Your task to perform on an android device: stop showing notifications on the lock screen Image 0: 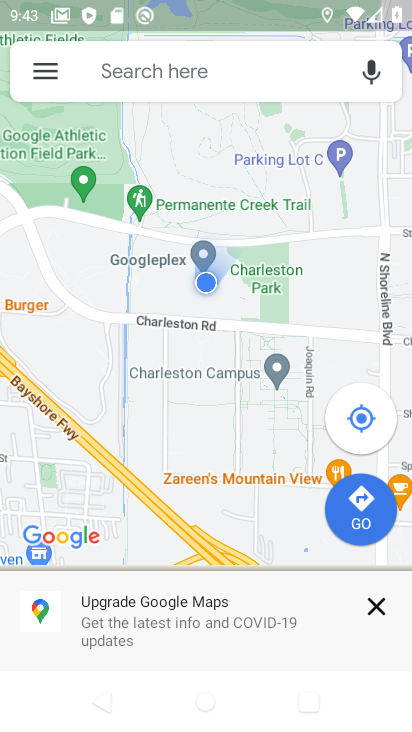
Step 0: press home button
Your task to perform on an android device: stop showing notifications on the lock screen Image 1: 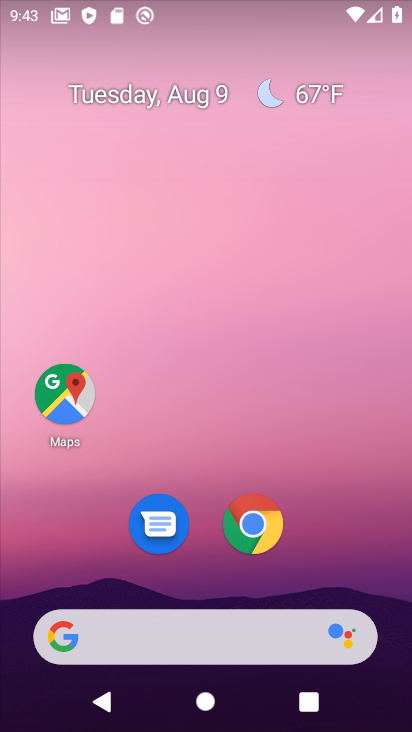
Step 1: drag from (304, 557) to (243, 216)
Your task to perform on an android device: stop showing notifications on the lock screen Image 2: 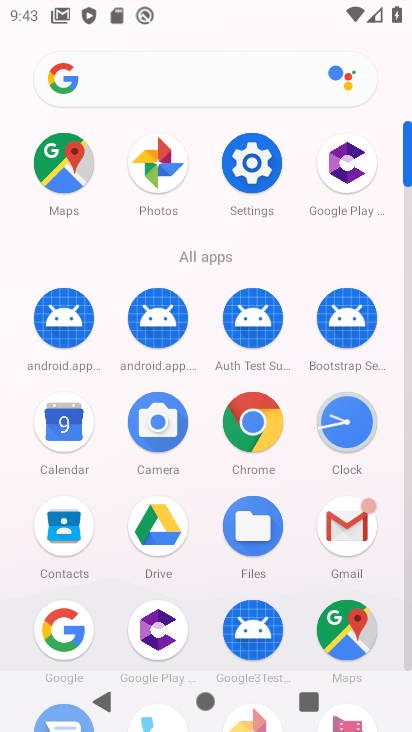
Step 2: click (256, 191)
Your task to perform on an android device: stop showing notifications on the lock screen Image 3: 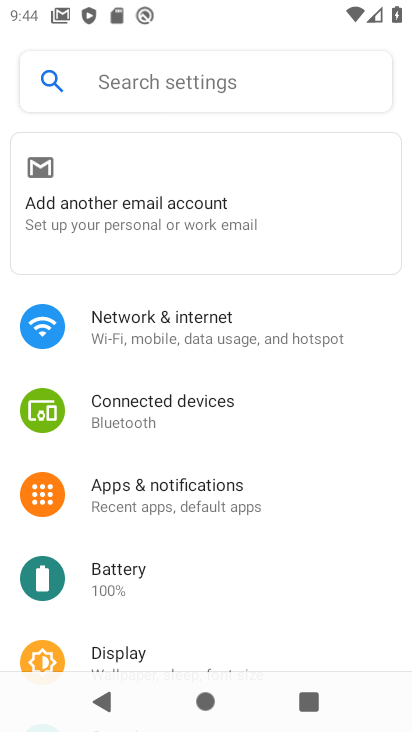
Step 3: click (175, 495)
Your task to perform on an android device: stop showing notifications on the lock screen Image 4: 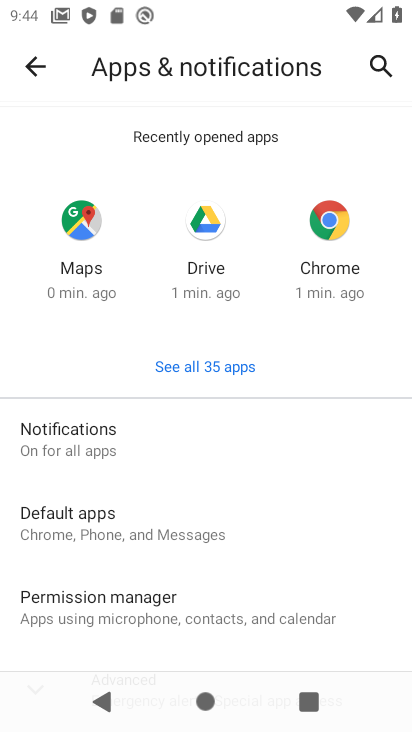
Step 4: drag from (139, 568) to (180, 234)
Your task to perform on an android device: stop showing notifications on the lock screen Image 5: 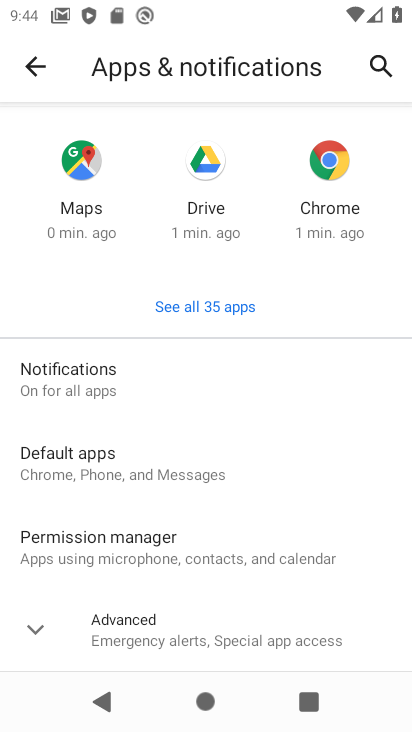
Step 5: click (185, 632)
Your task to perform on an android device: stop showing notifications on the lock screen Image 6: 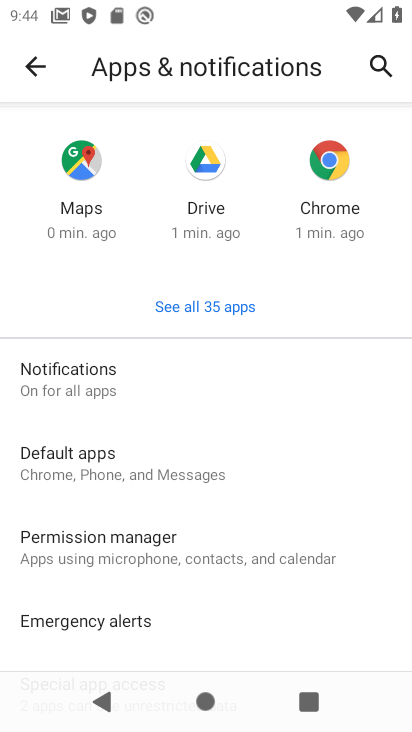
Step 6: click (82, 394)
Your task to perform on an android device: stop showing notifications on the lock screen Image 7: 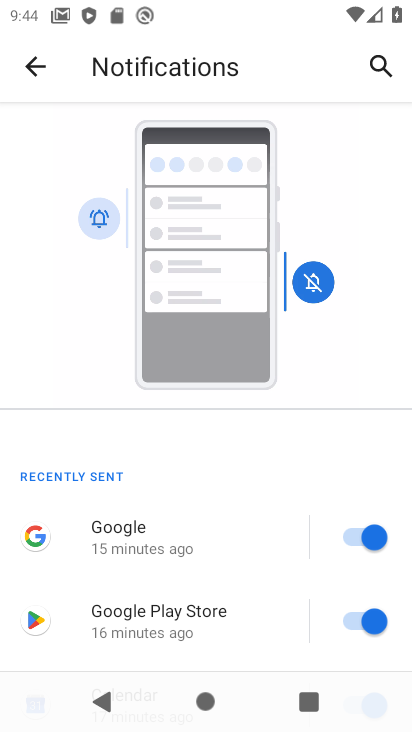
Step 7: drag from (99, 594) to (174, 218)
Your task to perform on an android device: stop showing notifications on the lock screen Image 8: 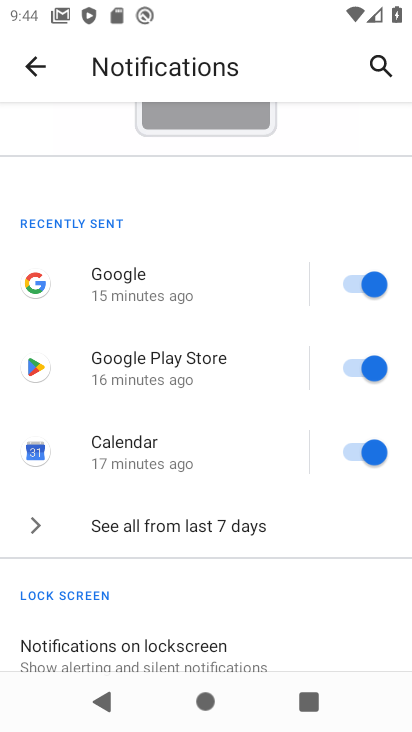
Step 8: drag from (213, 629) to (256, 137)
Your task to perform on an android device: stop showing notifications on the lock screen Image 9: 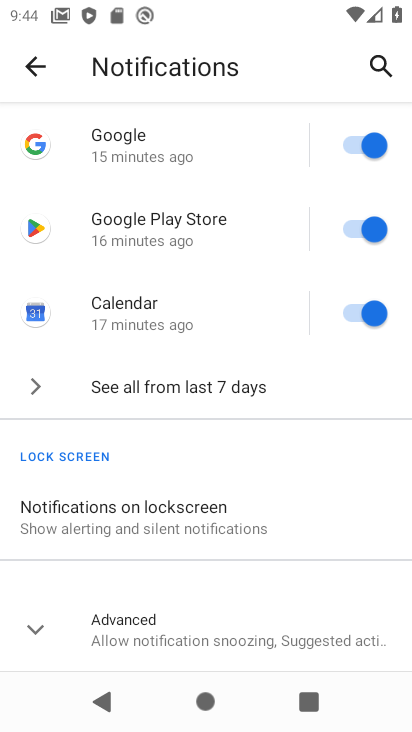
Step 9: click (186, 616)
Your task to perform on an android device: stop showing notifications on the lock screen Image 10: 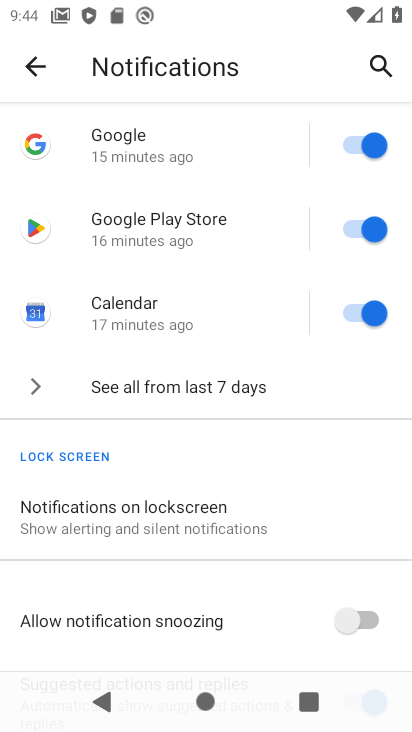
Step 10: click (165, 512)
Your task to perform on an android device: stop showing notifications on the lock screen Image 11: 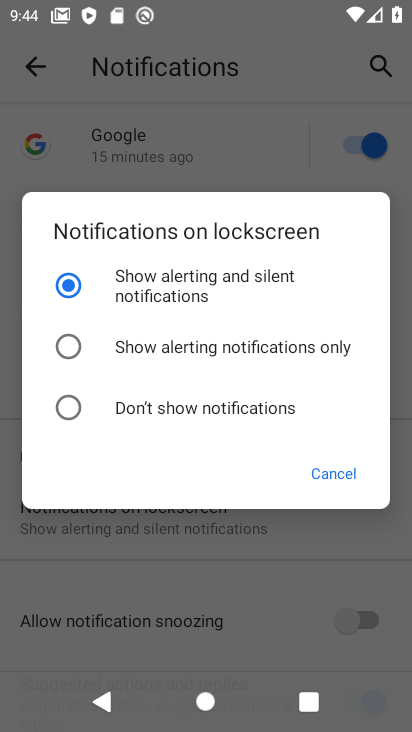
Step 11: click (77, 405)
Your task to perform on an android device: stop showing notifications on the lock screen Image 12: 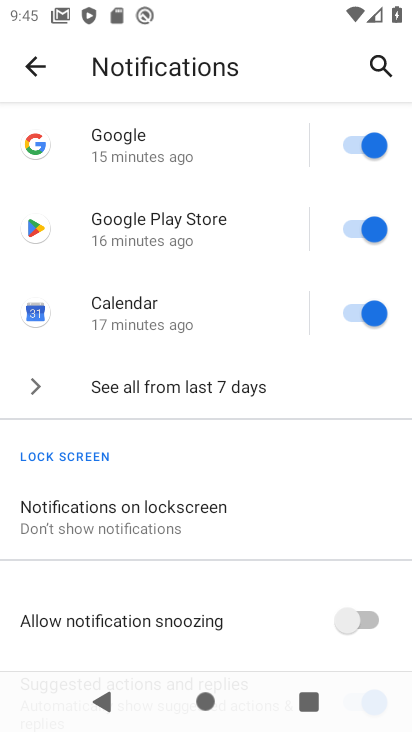
Step 12: task complete